Your task to perform on an android device: open chrome and create a bookmark for the current page Image 0: 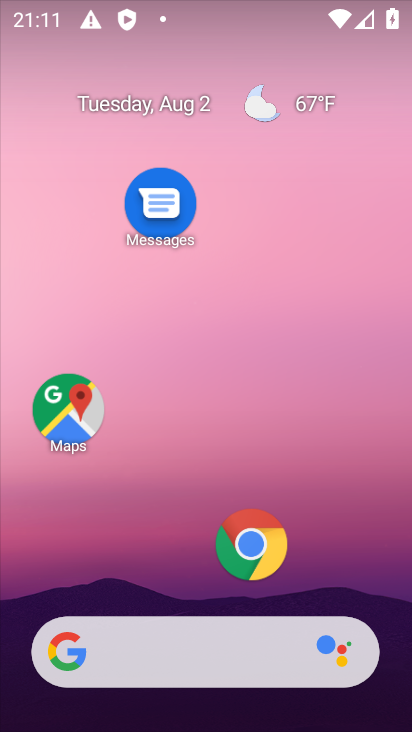
Step 0: click (243, 553)
Your task to perform on an android device: open chrome and create a bookmark for the current page Image 1: 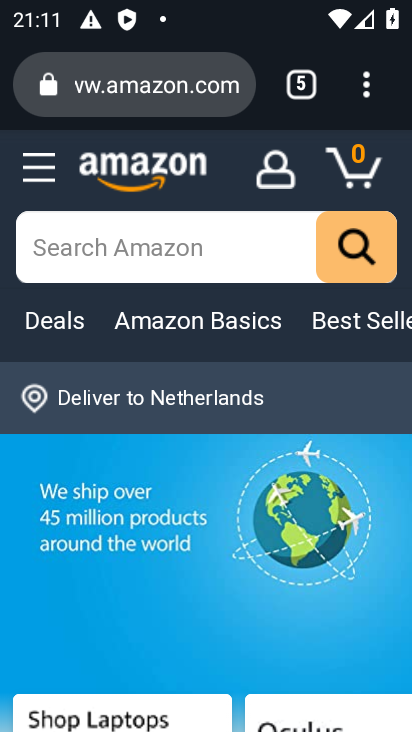
Step 1: click (318, 90)
Your task to perform on an android device: open chrome and create a bookmark for the current page Image 2: 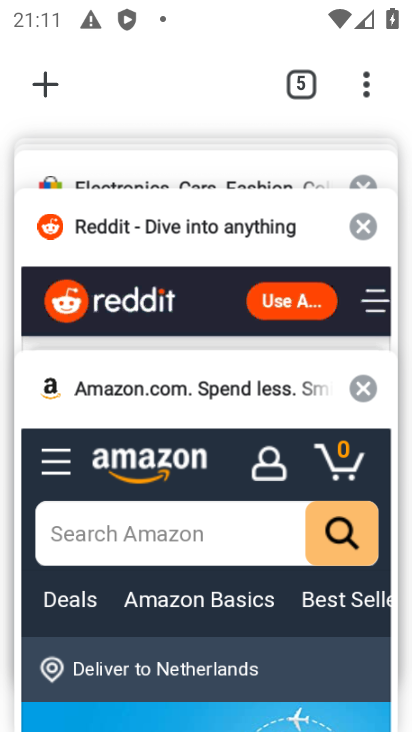
Step 2: click (44, 83)
Your task to perform on an android device: open chrome and create a bookmark for the current page Image 3: 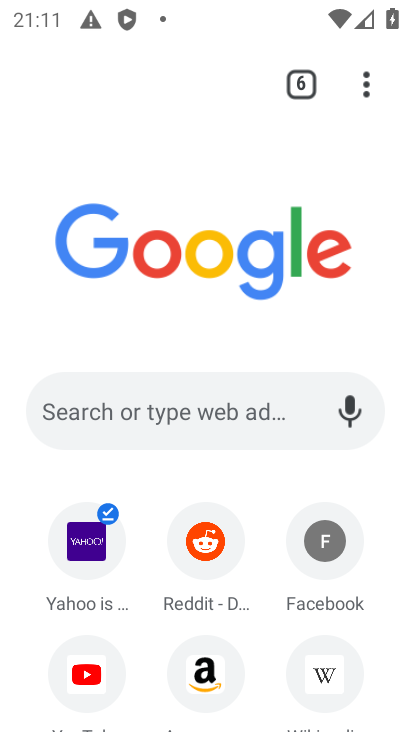
Step 3: drag from (235, 513) to (204, 162)
Your task to perform on an android device: open chrome and create a bookmark for the current page Image 4: 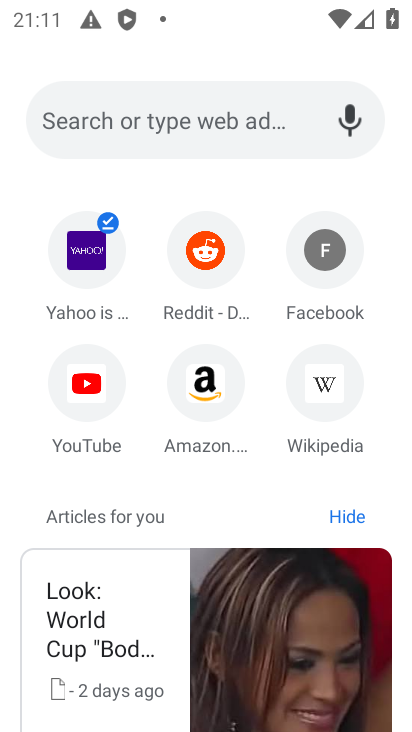
Step 4: drag from (181, 600) to (181, 139)
Your task to perform on an android device: open chrome and create a bookmark for the current page Image 5: 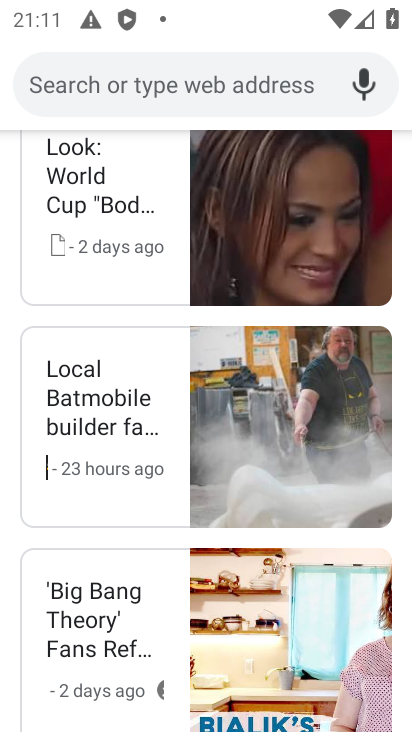
Step 5: drag from (183, 555) to (197, 128)
Your task to perform on an android device: open chrome and create a bookmark for the current page Image 6: 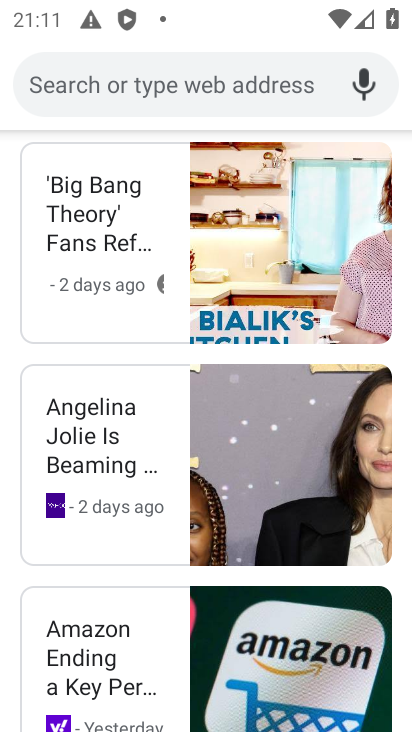
Step 6: click (133, 458)
Your task to perform on an android device: open chrome and create a bookmark for the current page Image 7: 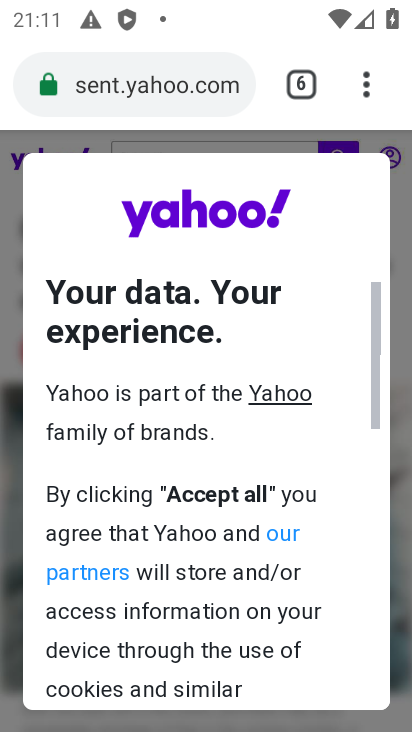
Step 7: click (362, 82)
Your task to perform on an android device: open chrome and create a bookmark for the current page Image 8: 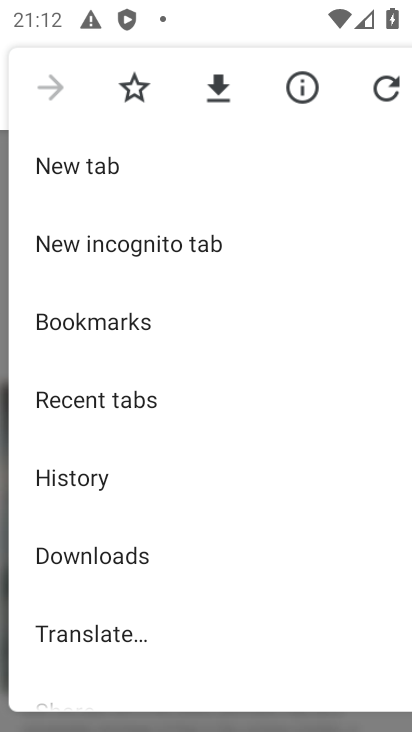
Step 8: click (127, 88)
Your task to perform on an android device: open chrome and create a bookmark for the current page Image 9: 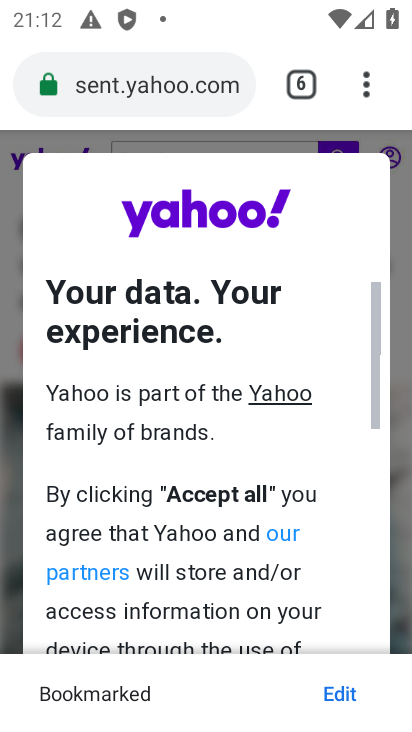
Step 9: task complete